Your task to perform on an android device: add a contact in the contacts app Image 0: 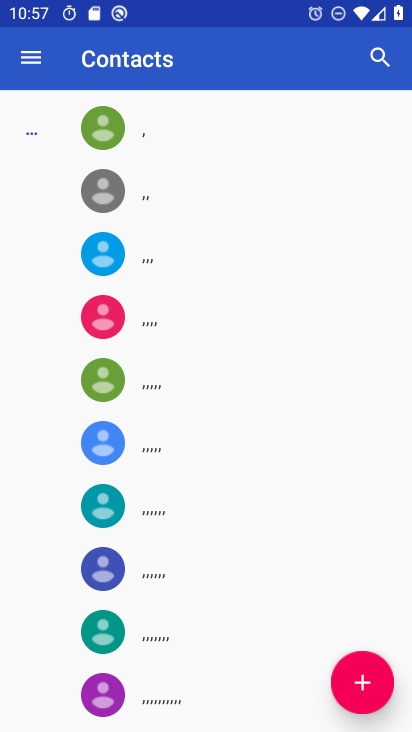
Step 0: press home button
Your task to perform on an android device: add a contact in the contacts app Image 1: 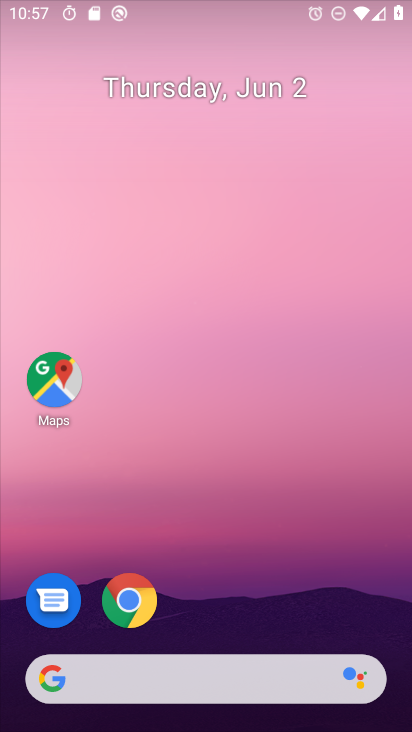
Step 1: drag from (197, 478) to (190, 49)
Your task to perform on an android device: add a contact in the contacts app Image 2: 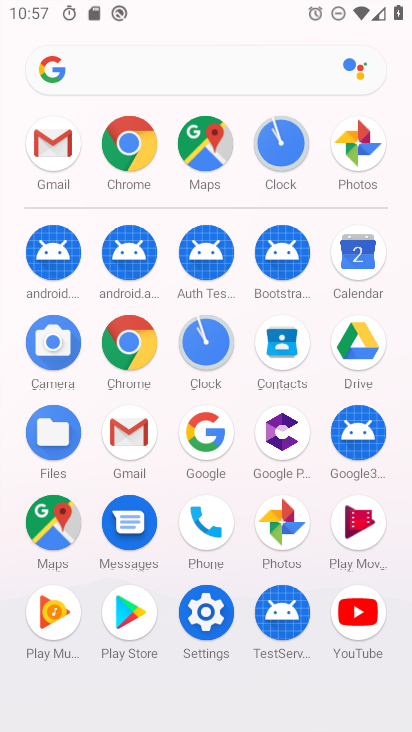
Step 2: click (276, 342)
Your task to perform on an android device: add a contact in the contacts app Image 3: 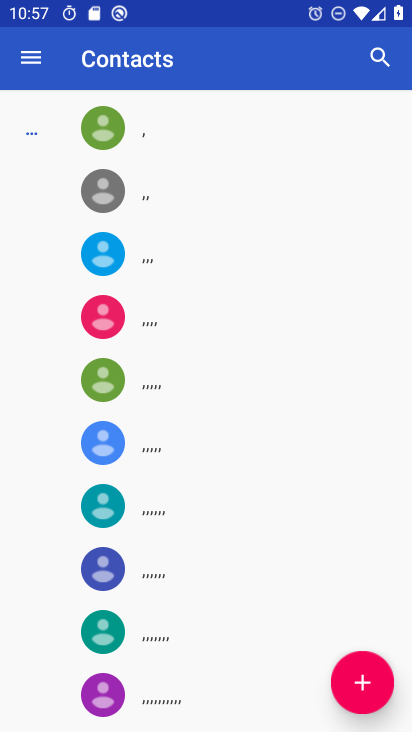
Step 3: click (351, 679)
Your task to perform on an android device: add a contact in the contacts app Image 4: 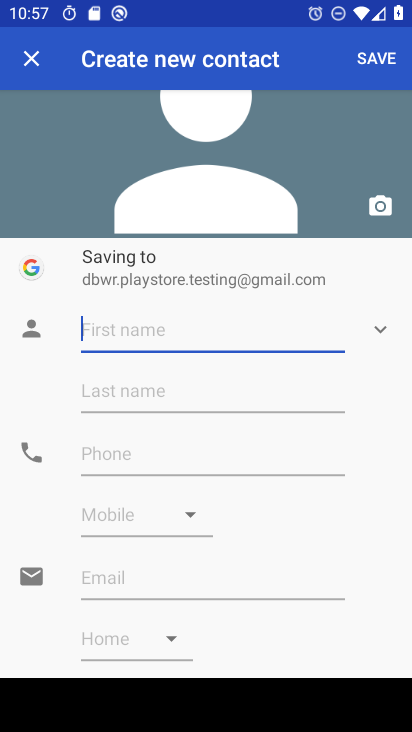
Step 4: type "jufgkj"
Your task to perform on an android device: add a contact in the contacts app Image 5: 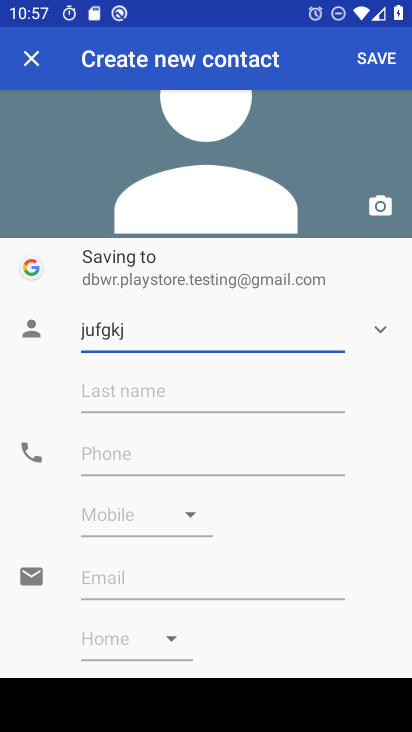
Step 5: click (388, 54)
Your task to perform on an android device: add a contact in the contacts app Image 6: 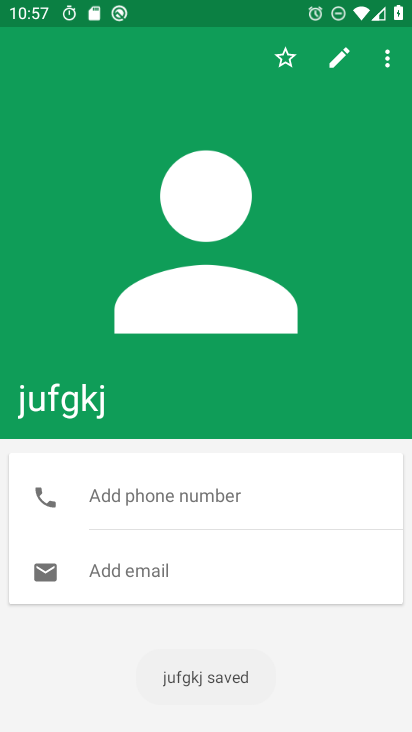
Step 6: task complete